Your task to perform on an android device: turn on javascript in the chrome app Image 0: 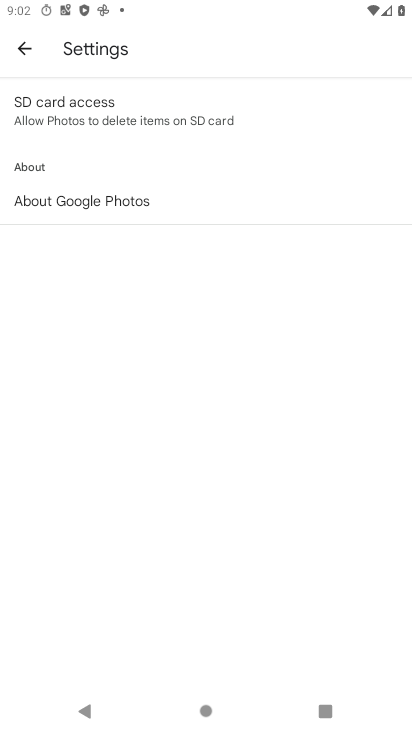
Step 0: press home button
Your task to perform on an android device: turn on javascript in the chrome app Image 1: 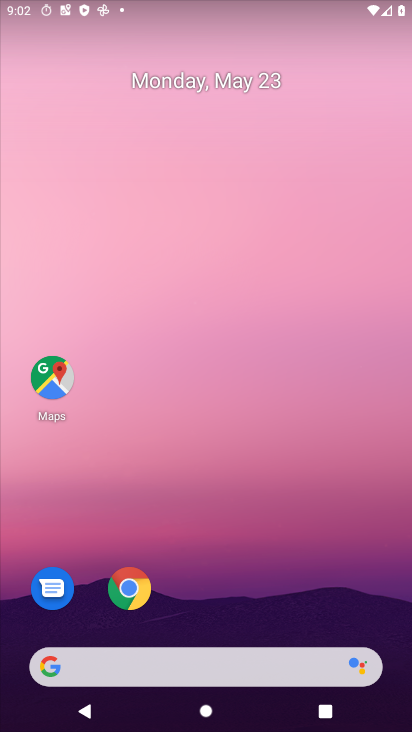
Step 1: click (139, 576)
Your task to perform on an android device: turn on javascript in the chrome app Image 2: 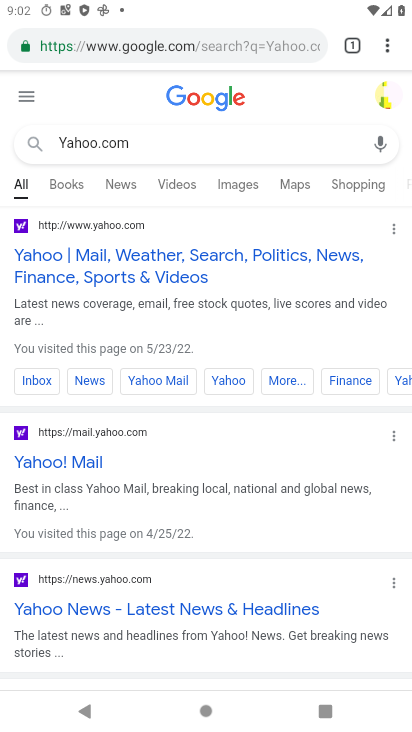
Step 2: click (387, 35)
Your task to perform on an android device: turn on javascript in the chrome app Image 3: 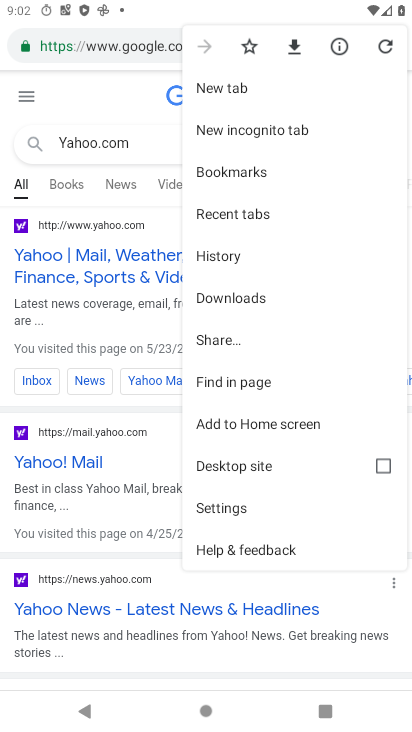
Step 3: click (223, 504)
Your task to perform on an android device: turn on javascript in the chrome app Image 4: 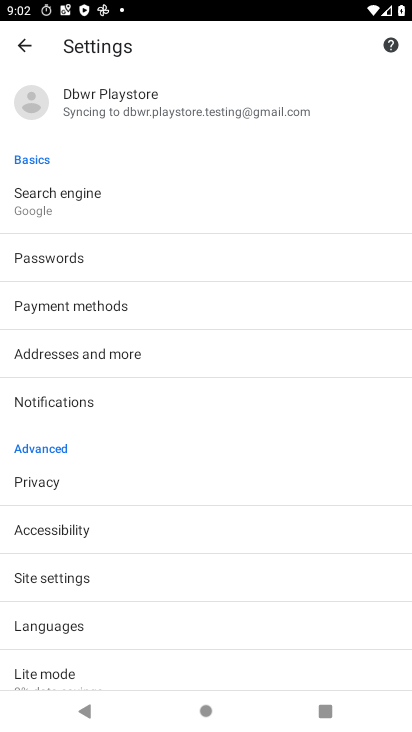
Step 4: click (101, 572)
Your task to perform on an android device: turn on javascript in the chrome app Image 5: 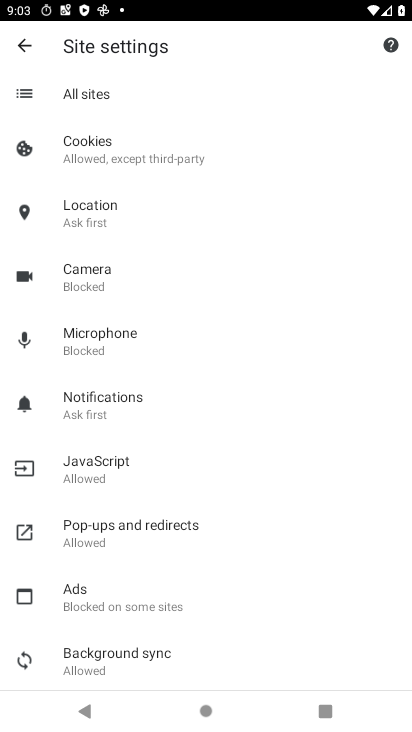
Step 5: click (100, 468)
Your task to perform on an android device: turn on javascript in the chrome app Image 6: 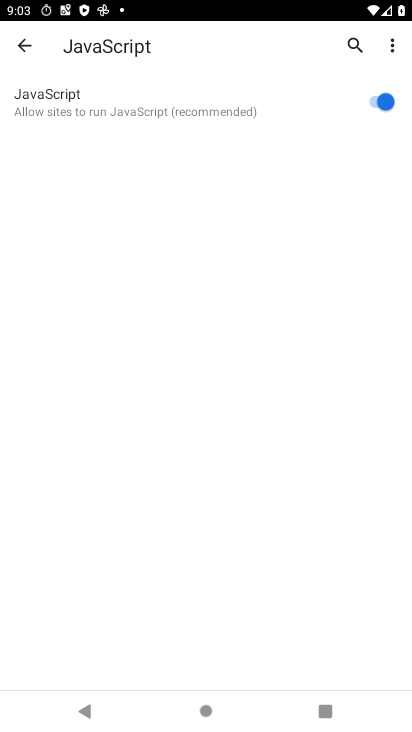
Step 6: task complete